Your task to perform on an android device: open a bookmark in the chrome app Image 0: 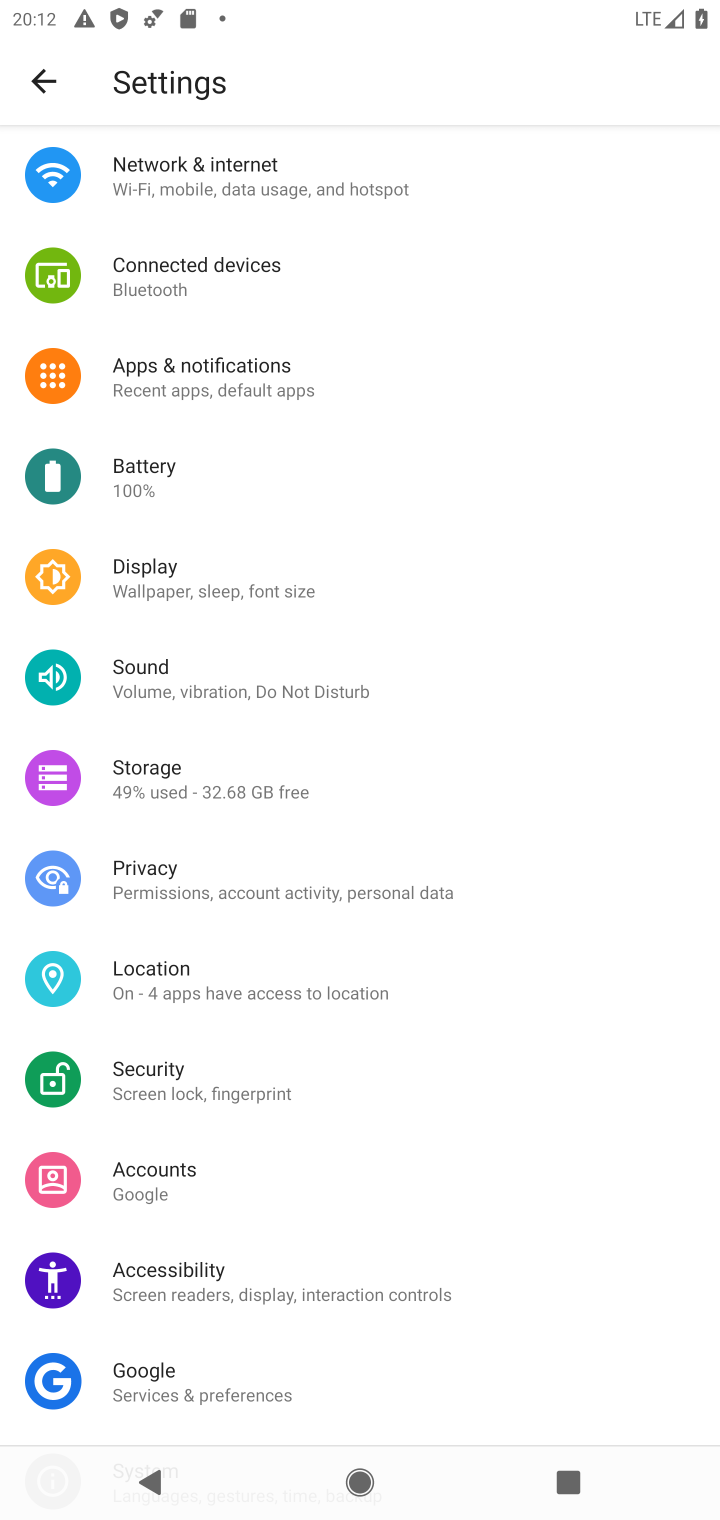
Step 0: press home button
Your task to perform on an android device: open a bookmark in the chrome app Image 1: 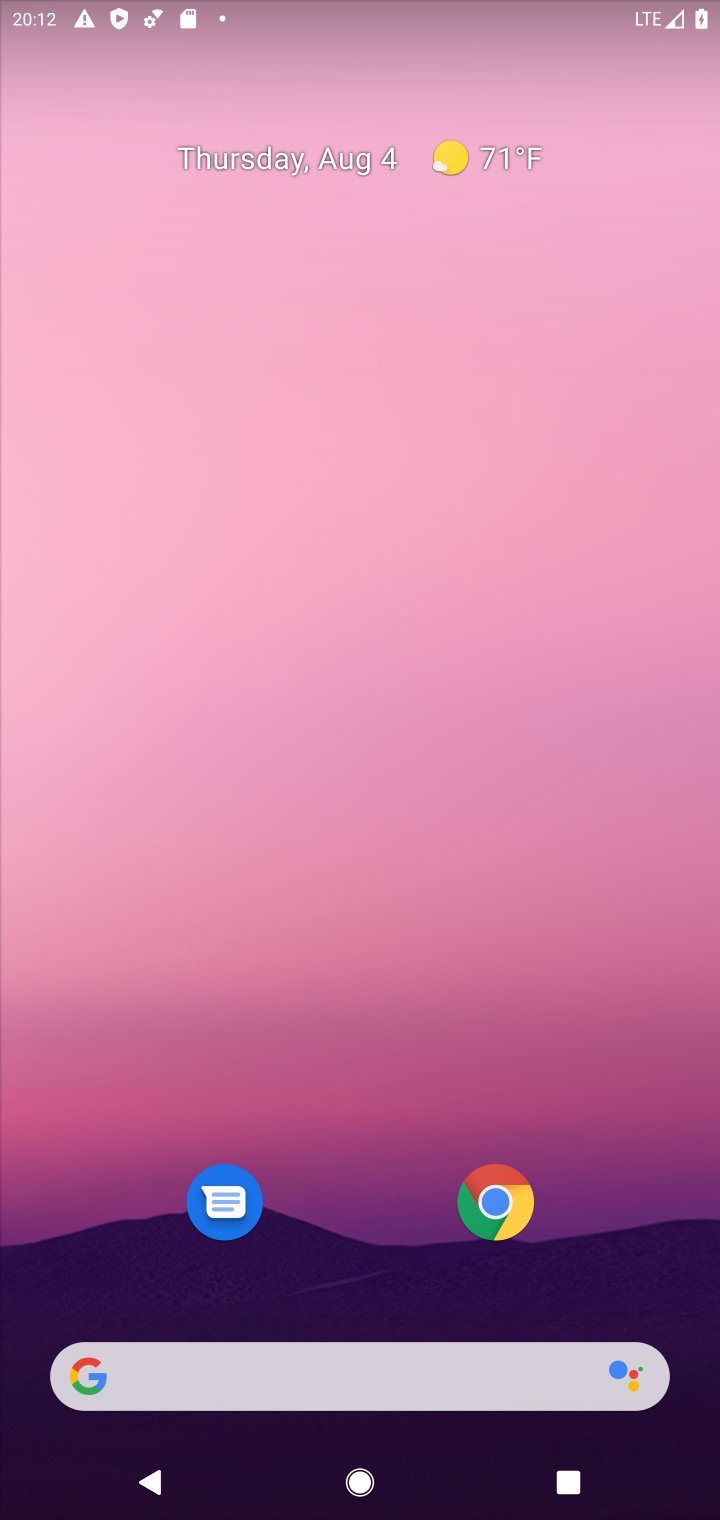
Step 1: click (506, 1234)
Your task to perform on an android device: open a bookmark in the chrome app Image 2: 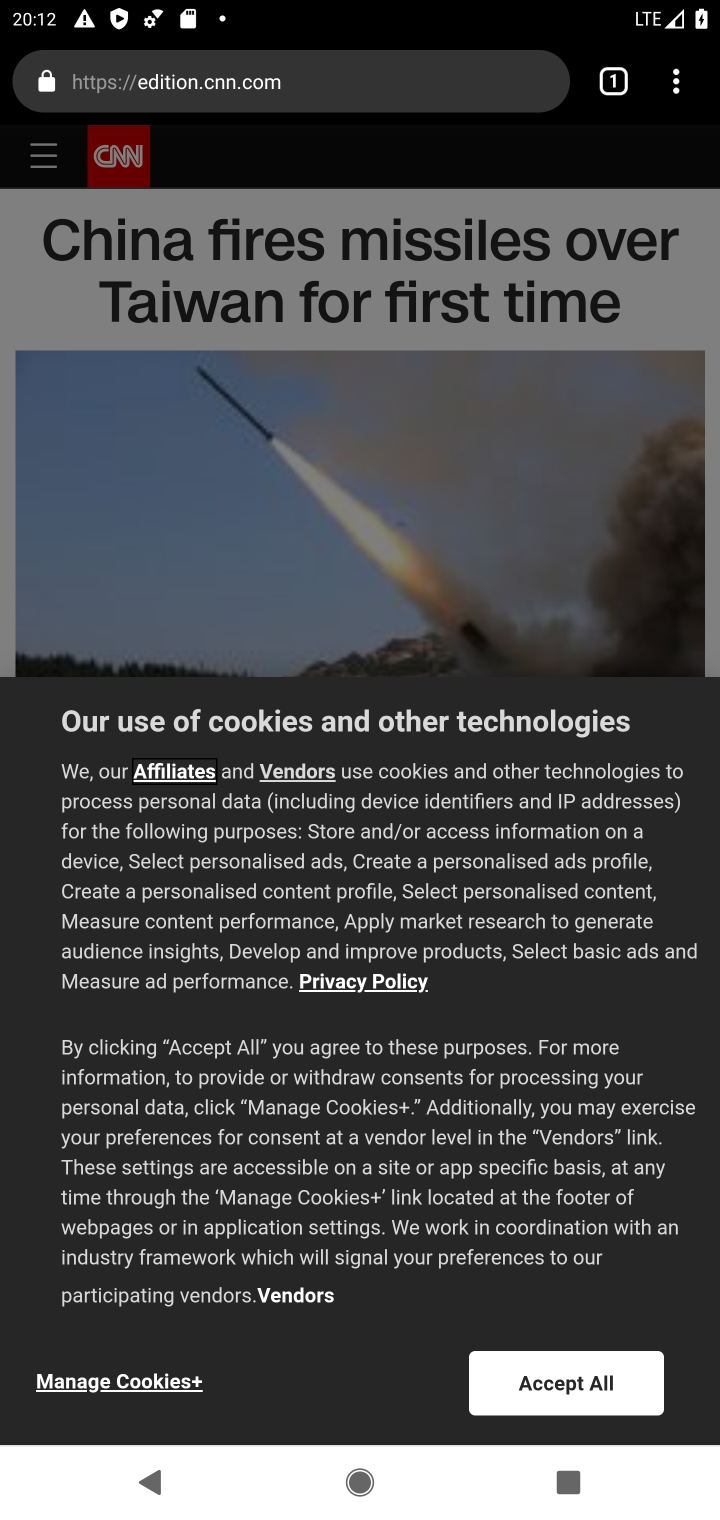
Step 2: click (623, 80)
Your task to perform on an android device: open a bookmark in the chrome app Image 3: 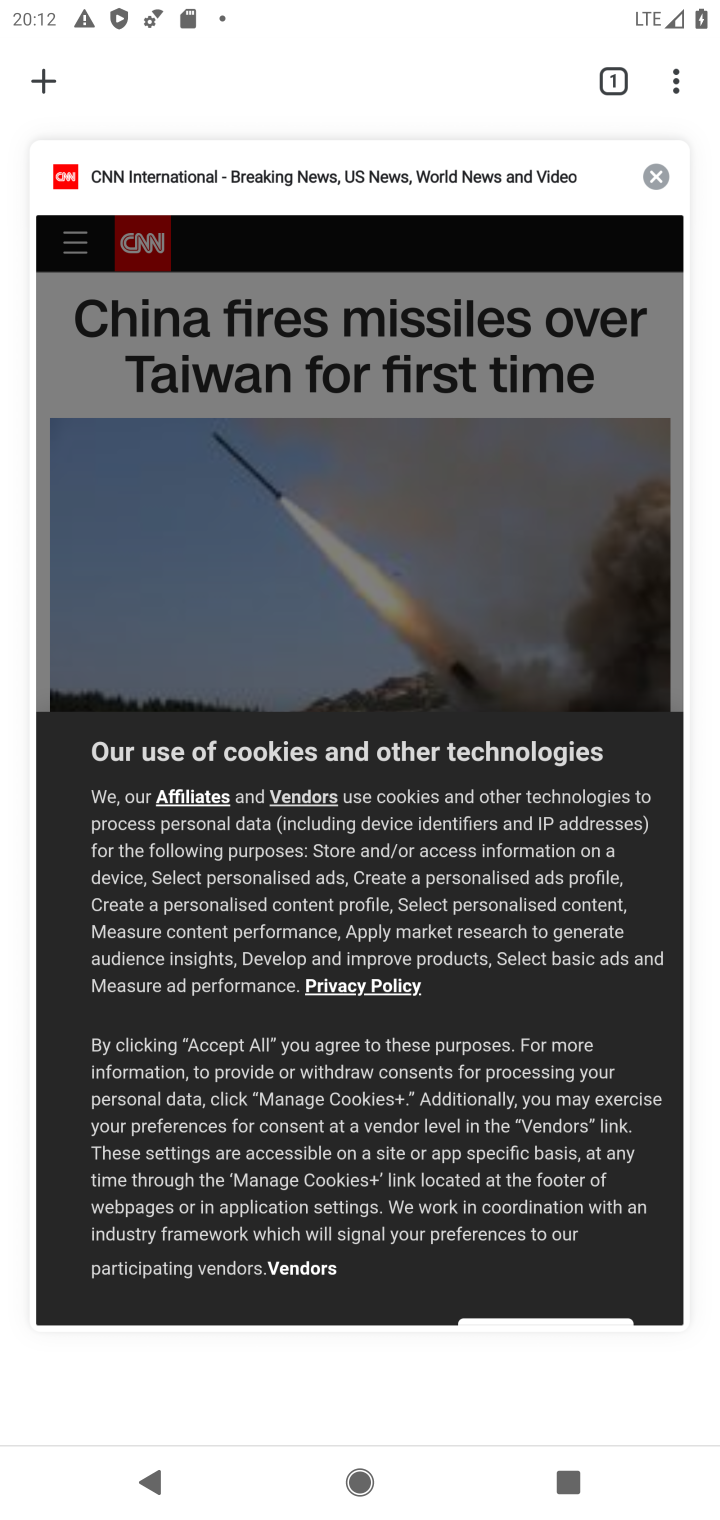
Step 3: click (59, 78)
Your task to perform on an android device: open a bookmark in the chrome app Image 4: 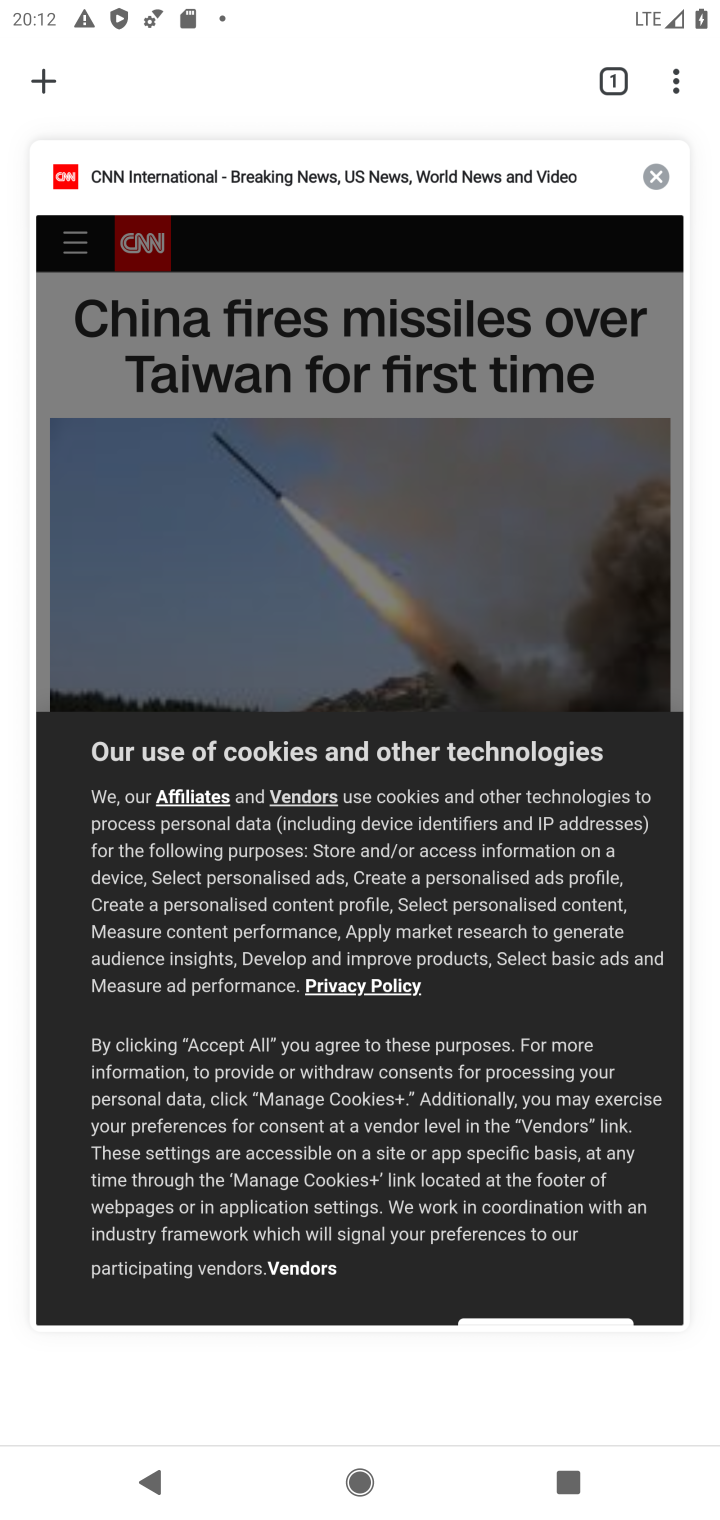
Step 4: click (53, 75)
Your task to perform on an android device: open a bookmark in the chrome app Image 5: 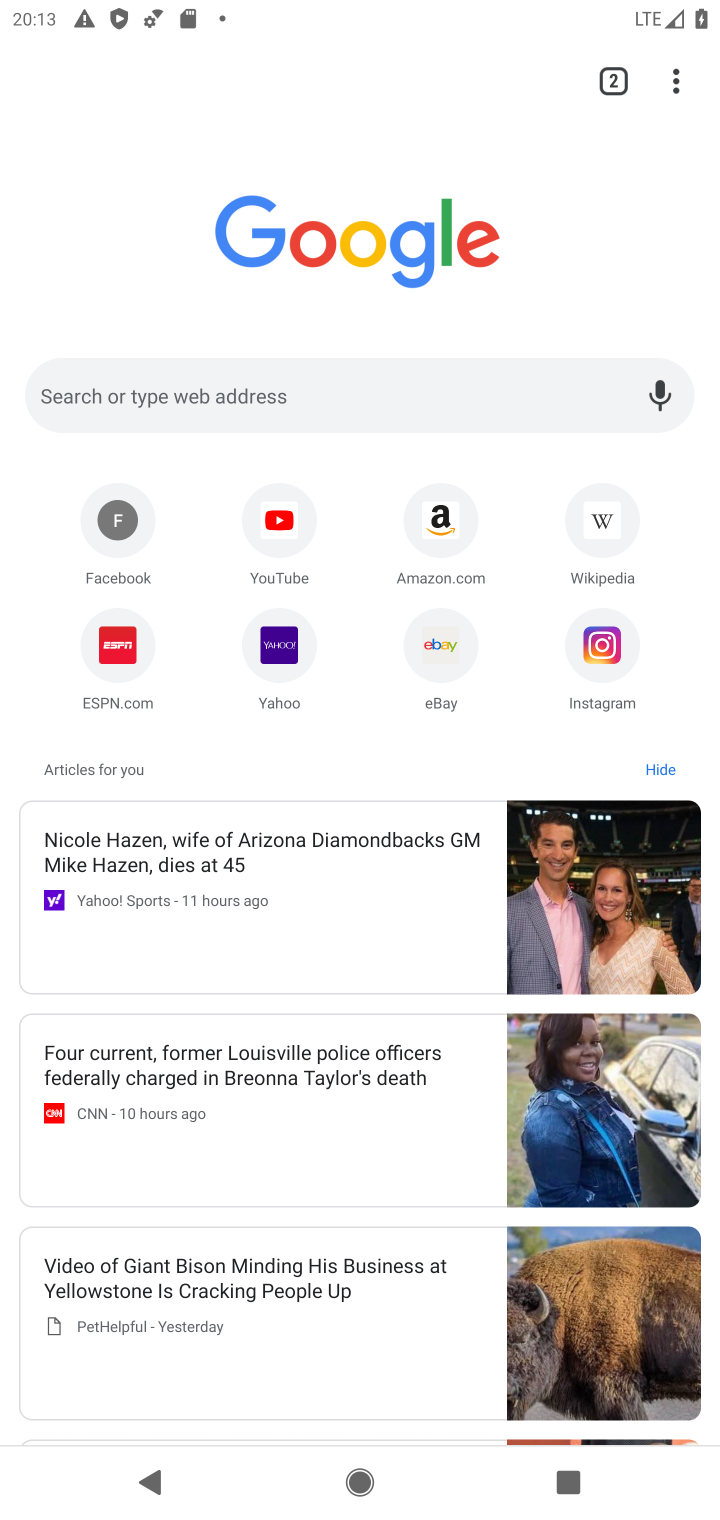
Step 5: click (683, 93)
Your task to perform on an android device: open a bookmark in the chrome app Image 6: 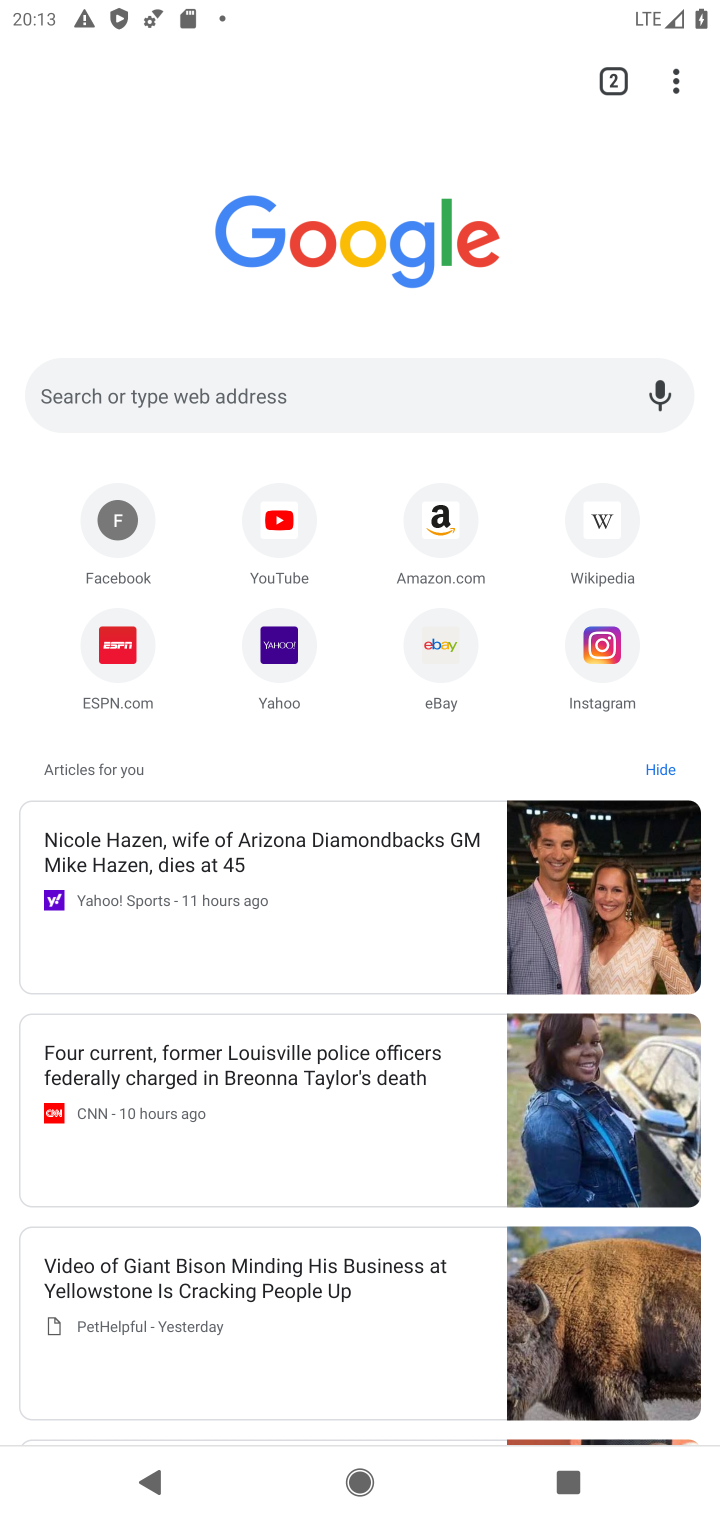
Step 6: drag from (671, 93) to (451, 318)
Your task to perform on an android device: open a bookmark in the chrome app Image 7: 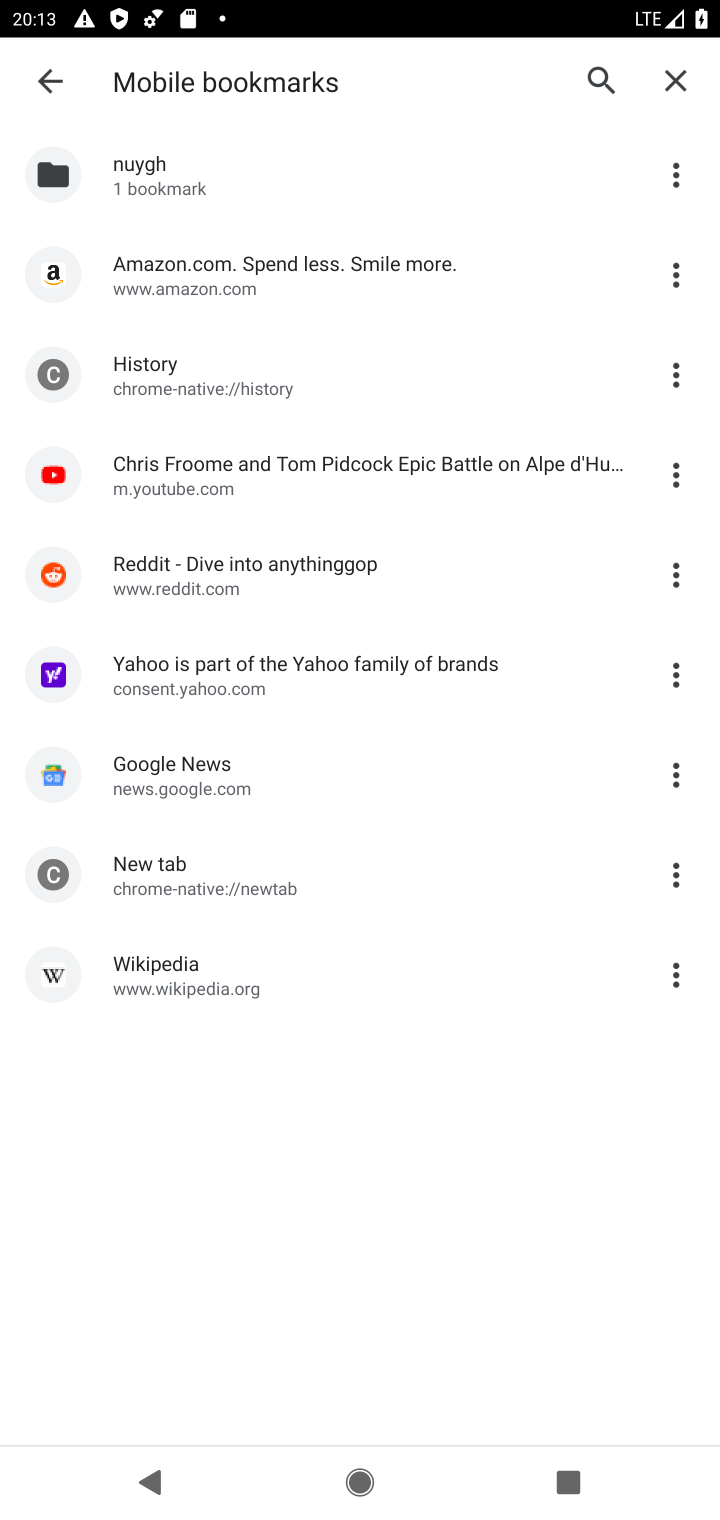
Step 7: click (193, 690)
Your task to perform on an android device: open a bookmark in the chrome app Image 8: 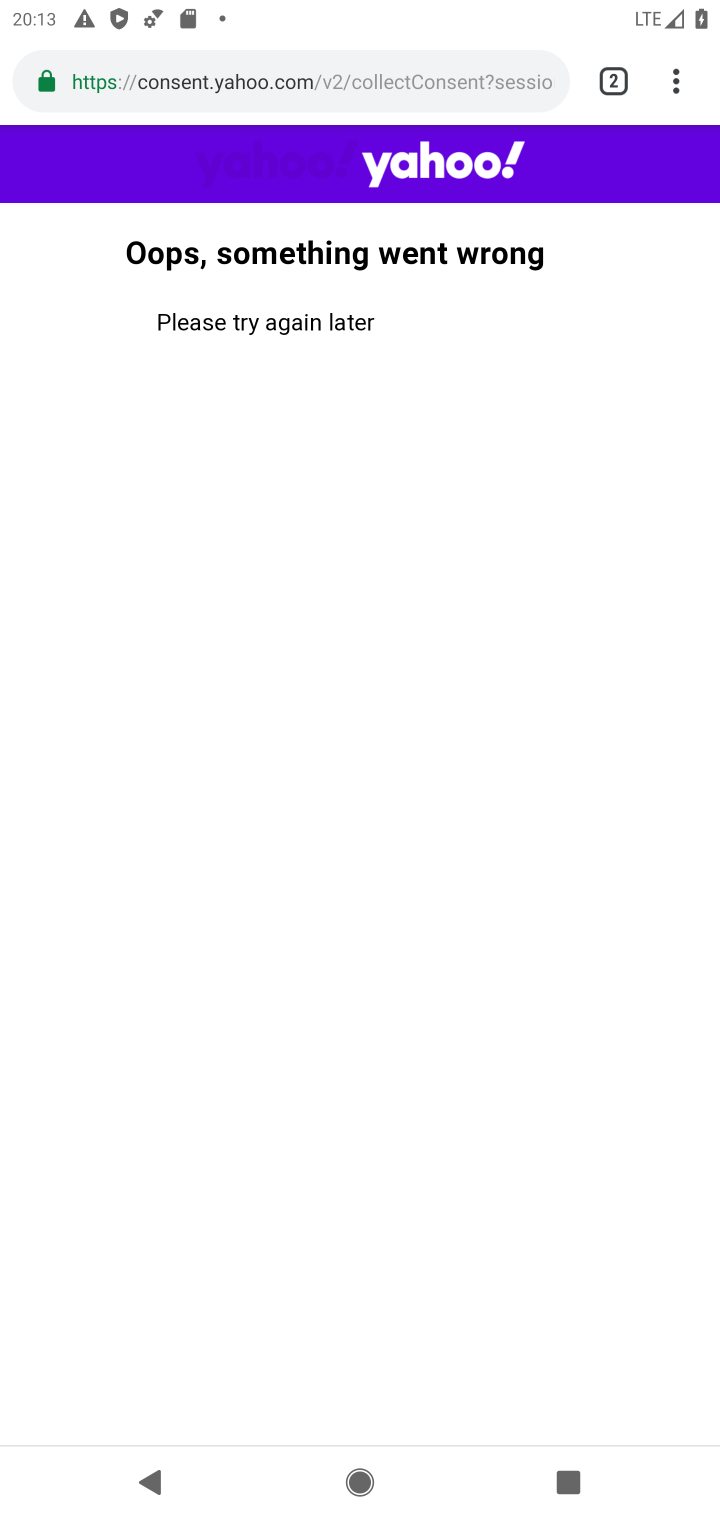
Step 8: task complete